Your task to perform on an android device: read, delete, or share a saved page in the chrome app Image 0: 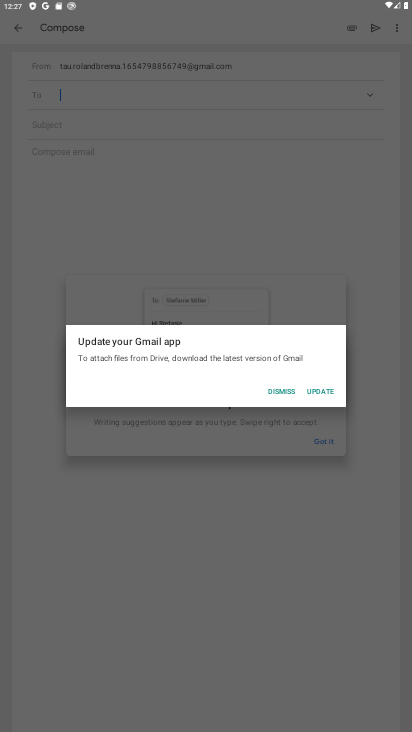
Step 0: press home button
Your task to perform on an android device: read, delete, or share a saved page in the chrome app Image 1: 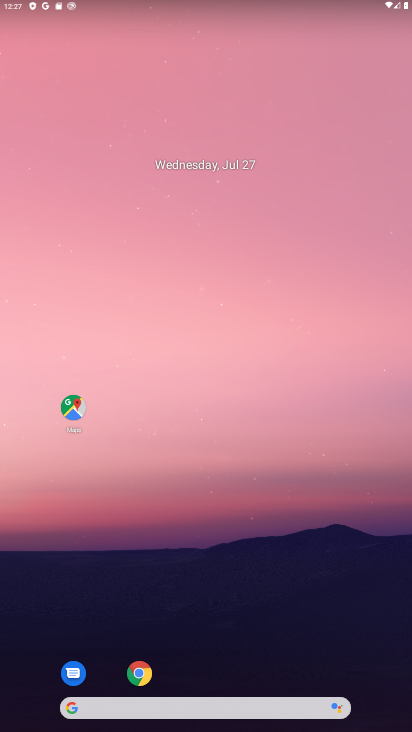
Step 1: click (142, 676)
Your task to perform on an android device: read, delete, or share a saved page in the chrome app Image 2: 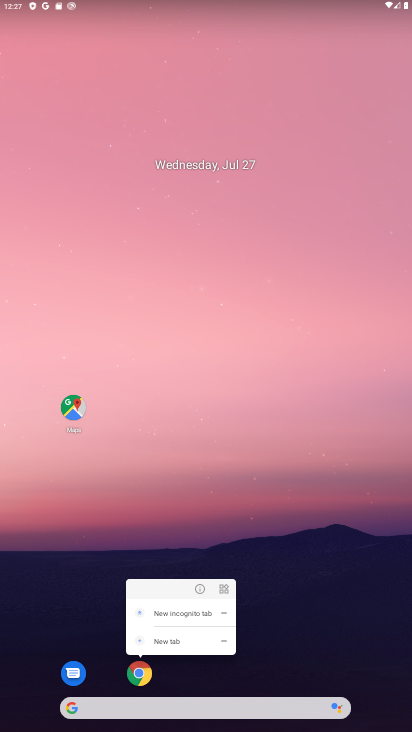
Step 2: click (142, 676)
Your task to perform on an android device: read, delete, or share a saved page in the chrome app Image 3: 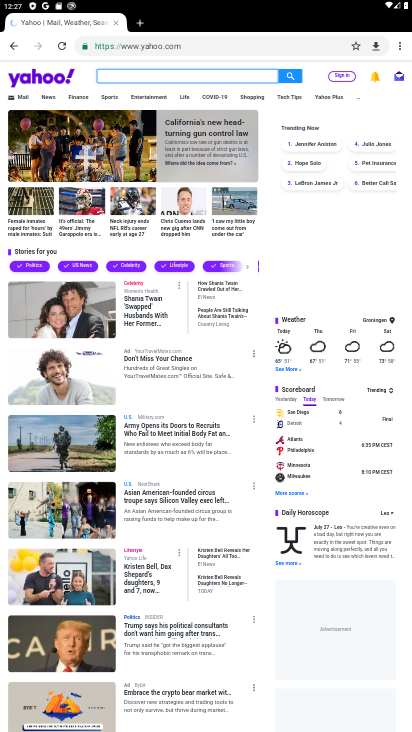
Step 3: drag from (401, 48) to (309, 161)
Your task to perform on an android device: read, delete, or share a saved page in the chrome app Image 4: 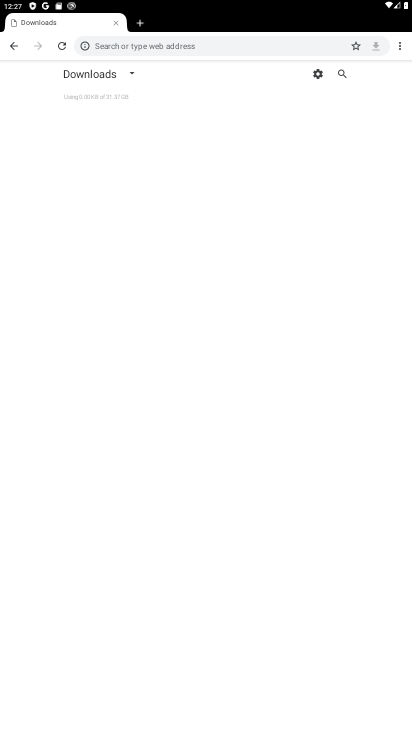
Step 4: click (132, 76)
Your task to perform on an android device: read, delete, or share a saved page in the chrome app Image 5: 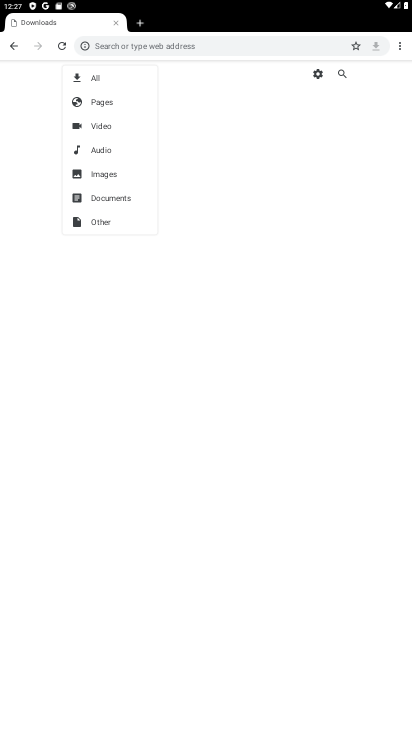
Step 5: click (104, 109)
Your task to perform on an android device: read, delete, or share a saved page in the chrome app Image 6: 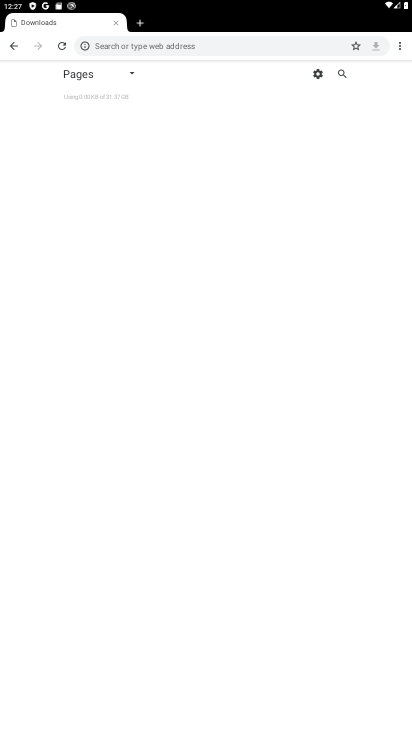
Step 6: task complete